Your task to perform on an android device: change your default location settings in chrome Image 0: 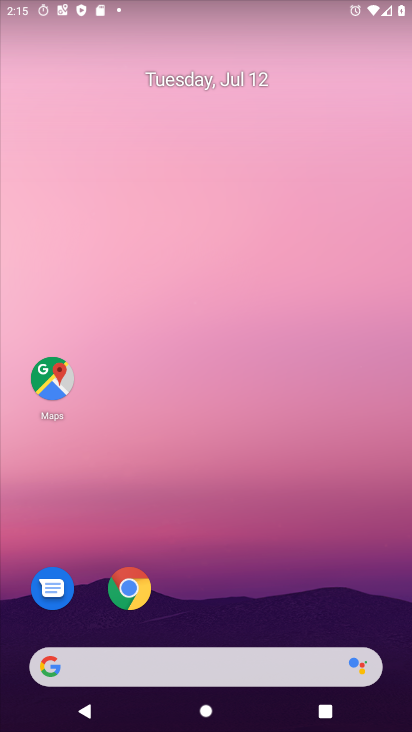
Step 0: drag from (279, 170) to (265, 98)
Your task to perform on an android device: change your default location settings in chrome Image 1: 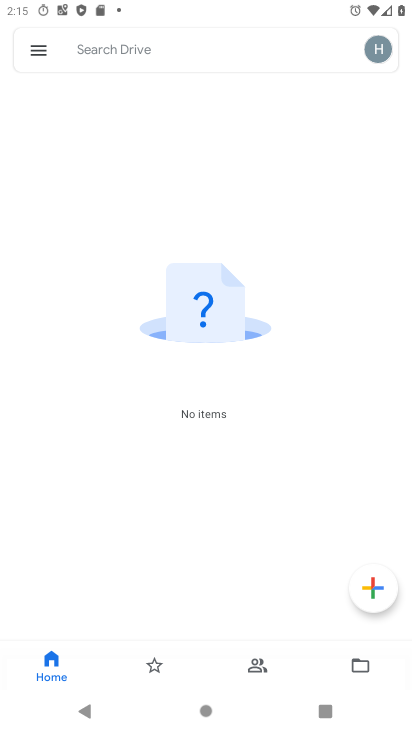
Step 1: press home button
Your task to perform on an android device: change your default location settings in chrome Image 2: 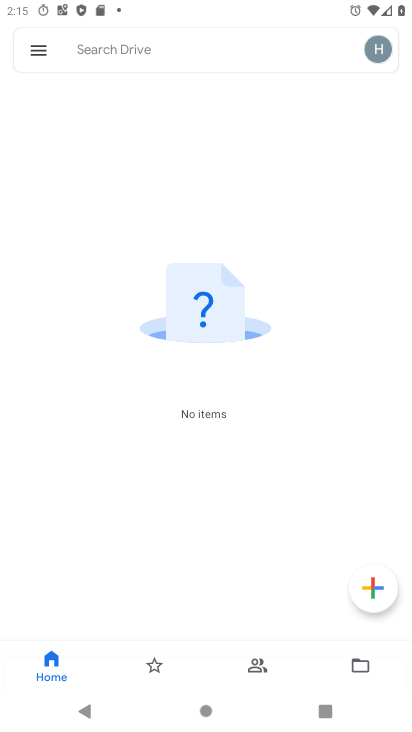
Step 2: press home button
Your task to perform on an android device: change your default location settings in chrome Image 3: 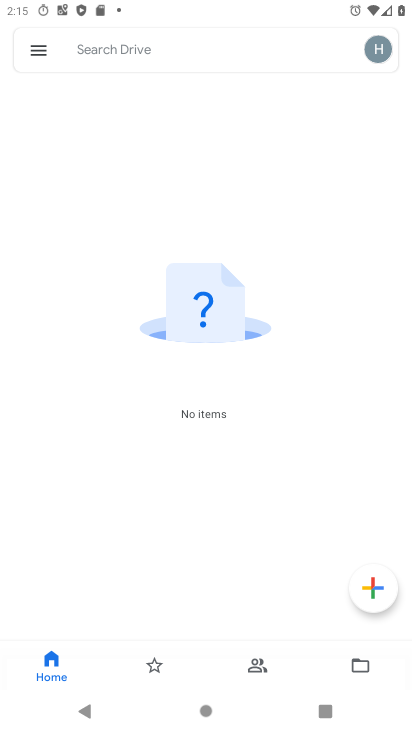
Step 3: click (181, 38)
Your task to perform on an android device: change your default location settings in chrome Image 4: 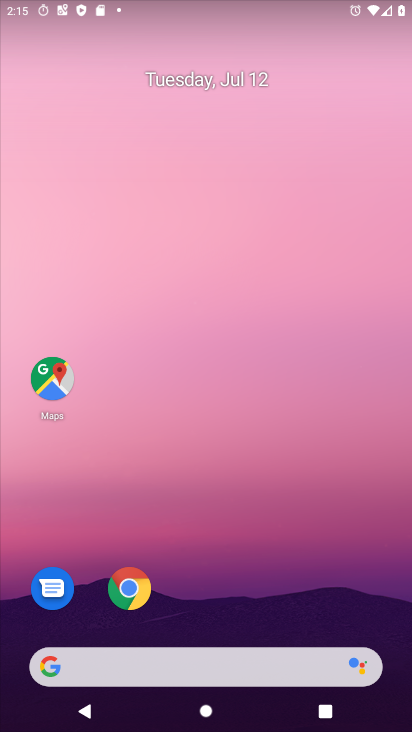
Step 4: drag from (207, 594) to (279, 152)
Your task to perform on an android device: change your default location settings in chrome Image 5: 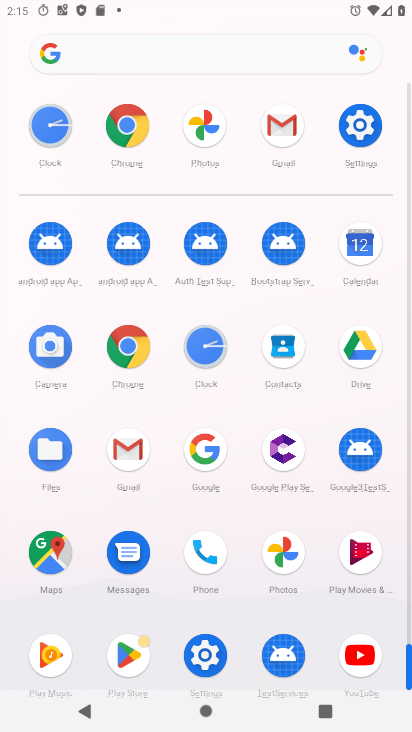
Step 5: click (132, 346)
Your task to perform on an android device: change your default location settings in chrome Image 6: 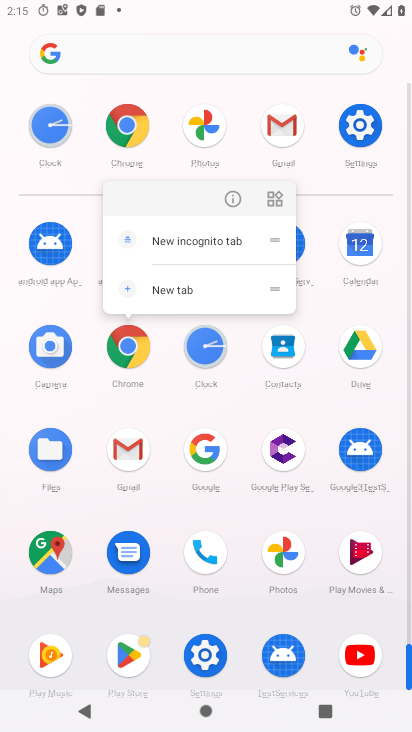
Step 6: click (231, 192)
Your task to perform on an android device: change your default location settings in chrome Image 7: 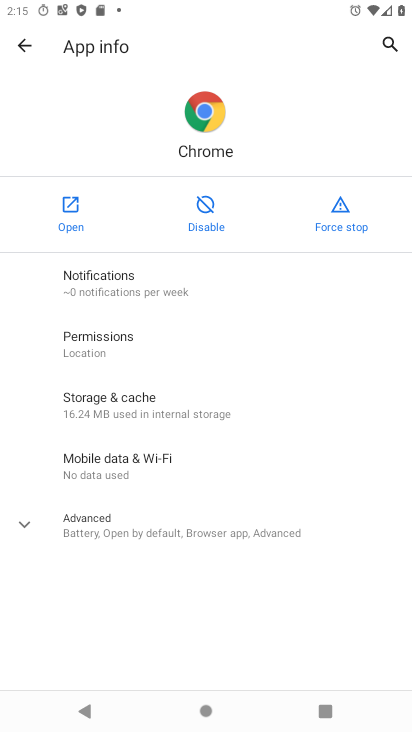
Step 7: click (60, 217)
Your task to perform on an android device: change your default location settings in chrome Image 8: 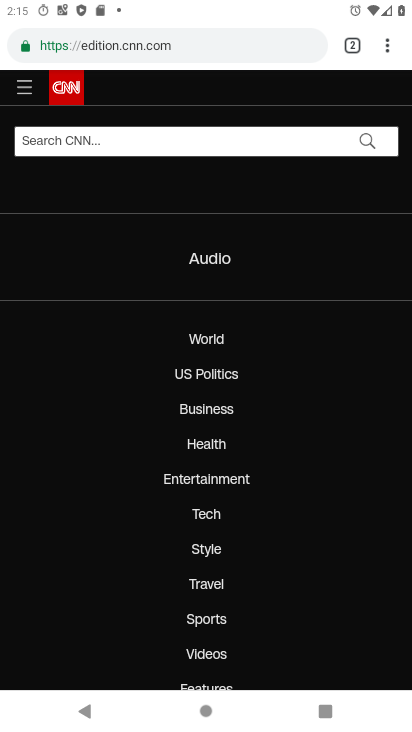
Step 8: click (378, 51)
Your task to perform on an android device: change your default location settings in chrome Image 9: 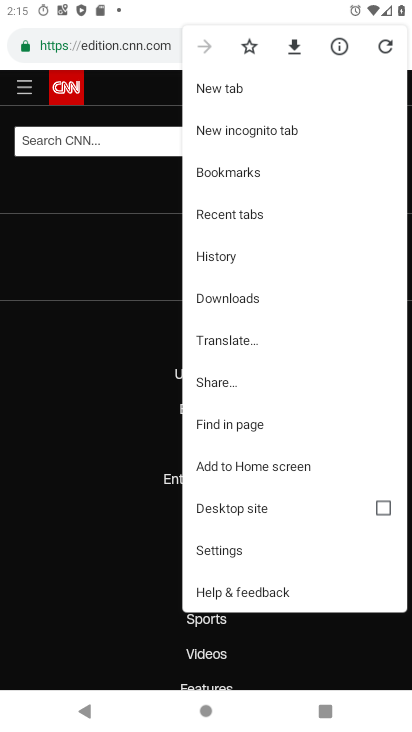
Step 9: drag from (290, 496) to (371, 173)
Your task to perform on an android device: change your default location settings in chrome Image 10: 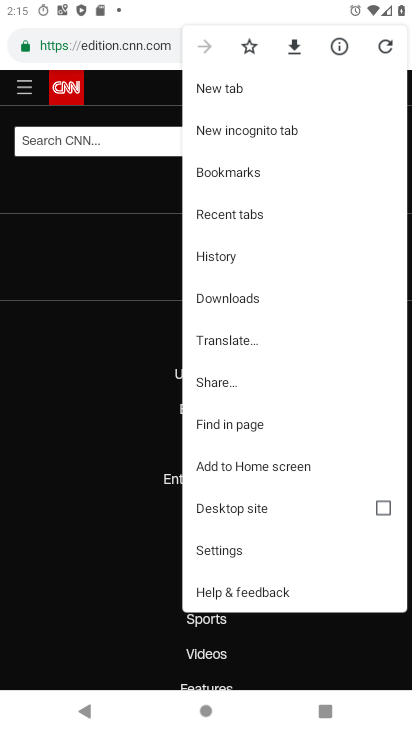
Step 10: click (222, 549)
Your task to perform on an android device: change your default location settings in chrome Image 11: 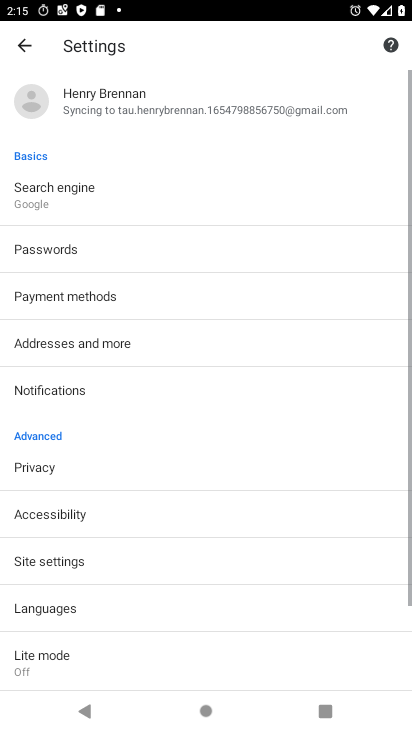
Step 11: drag from (190, 543) to (242, 283)
Your task to perform on an android device: change your default location settings in chrome Image 12: 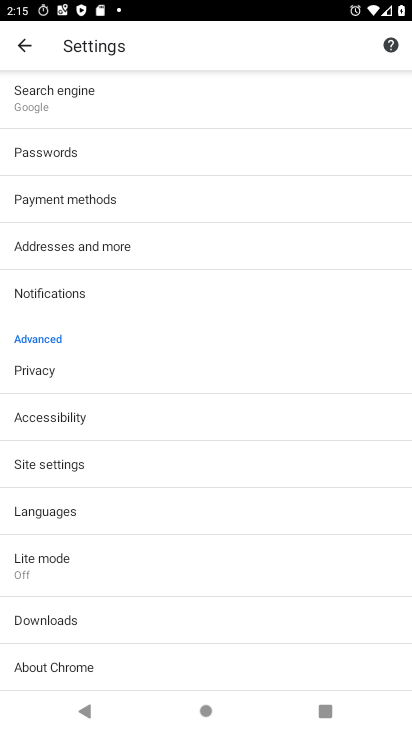
Step 12: click (110, 466)
Your task to perform on an android device: change your default location settings in chrome Image 13: 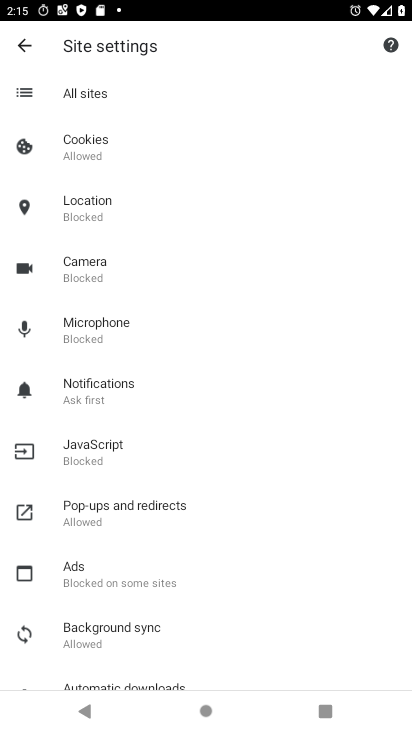
Step 13: click (131, 201)
Your task to perform on an android device: change your default location settings in chrome Image 14: 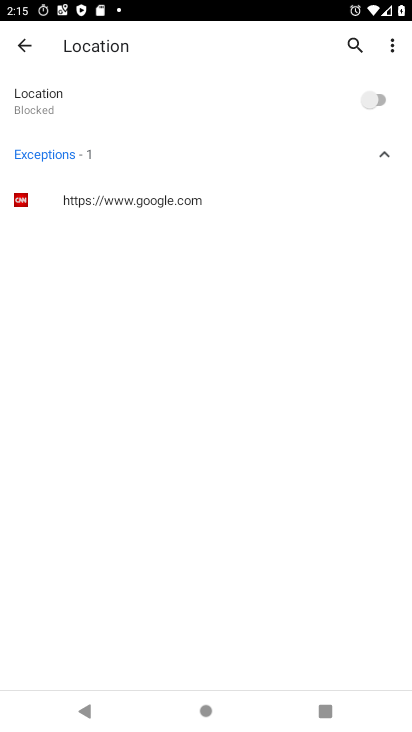
Step 14: task complete